Your task to perform on an android device: turn on the 24-hour format for clock Image 0: 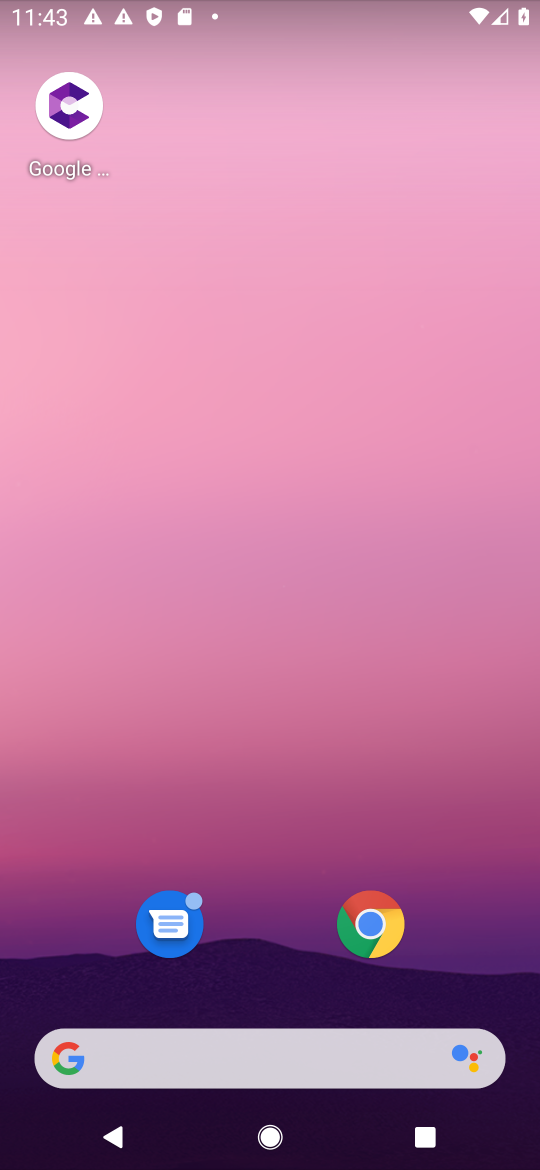
Step 0: drag from (481, 927) to (407, 183)
Your task to perform on an android device: turn on the 24-hour format for clock Image 1: 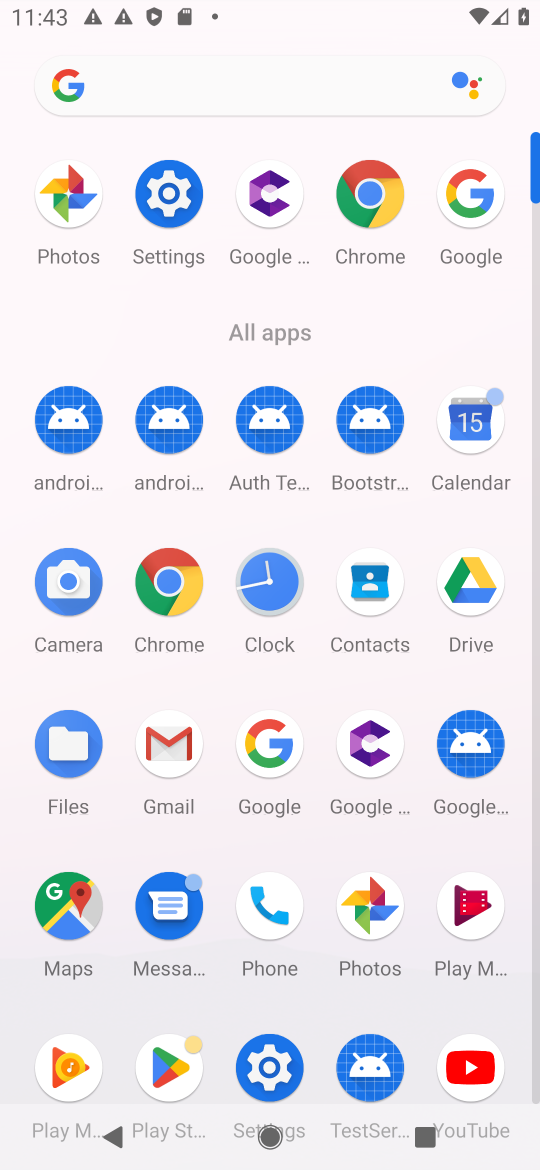
Step 1: click (275, 581)
Your task to perform on an android device: turn on the 24-hour format for clock Image 2: 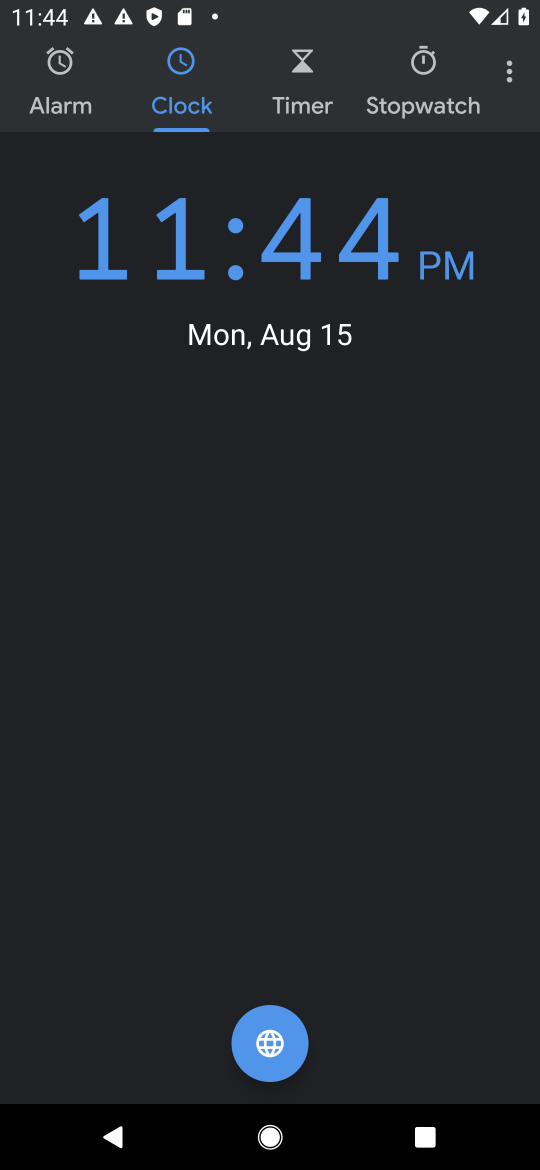
Step 2: click (507, 78)
Your task to perform on an android device: turn on the 24-hour format for clock Image 3: 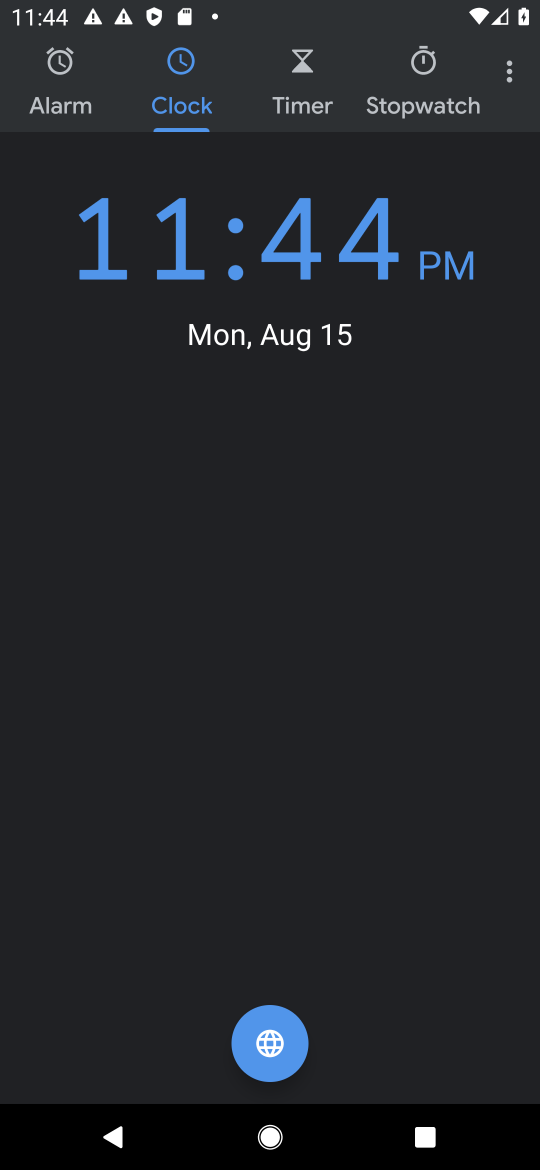
Step 3: click (514, 88)
Your task to perform on an android device: turn on the 24-hour format for clock Image 4: 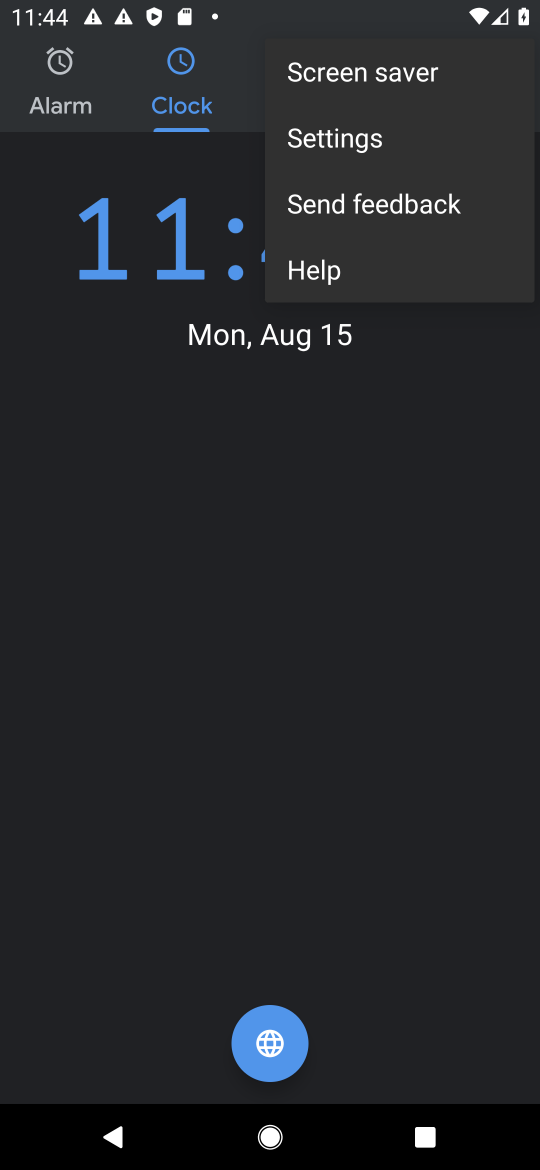
Step 4: click (352, 146)
Your task to perform on an android device: turn on the 24-hour format for clock Image 5: 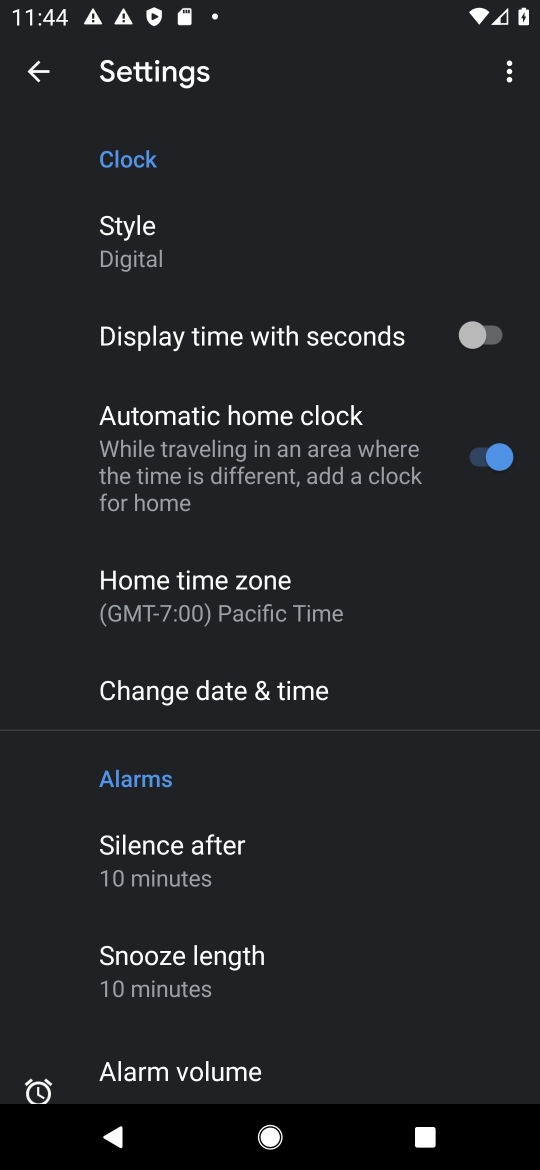
Step 5: drag from (342, 983) to (306, 294)
Your task to perform on an android device: turn on the 24-hour format for clock Image 6: 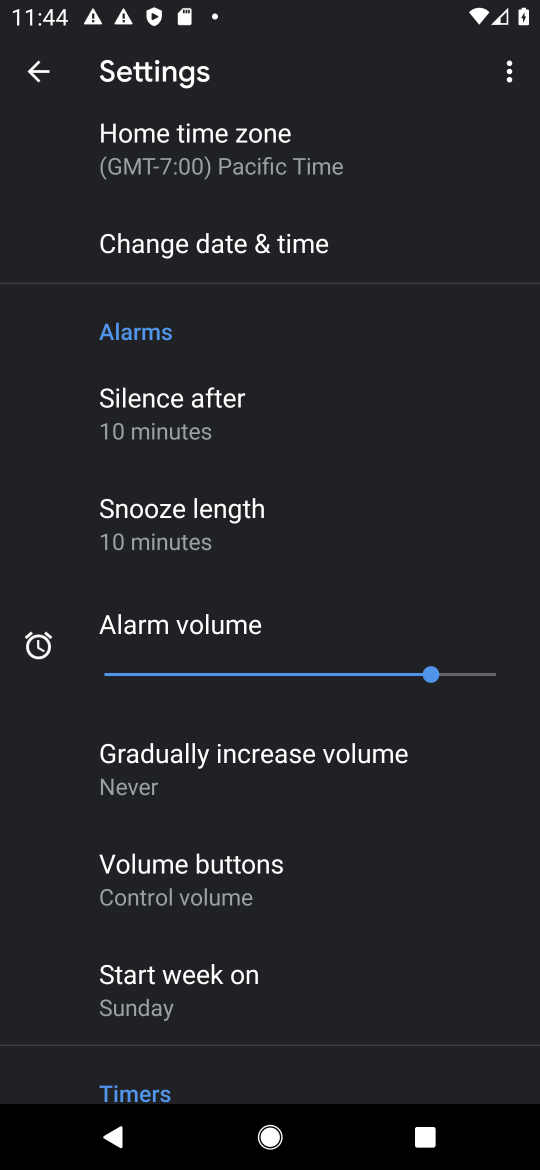
Step 6: click (183, 258)
Your task to perform on an android device: turn on the 24-hour format for clock Image 7: 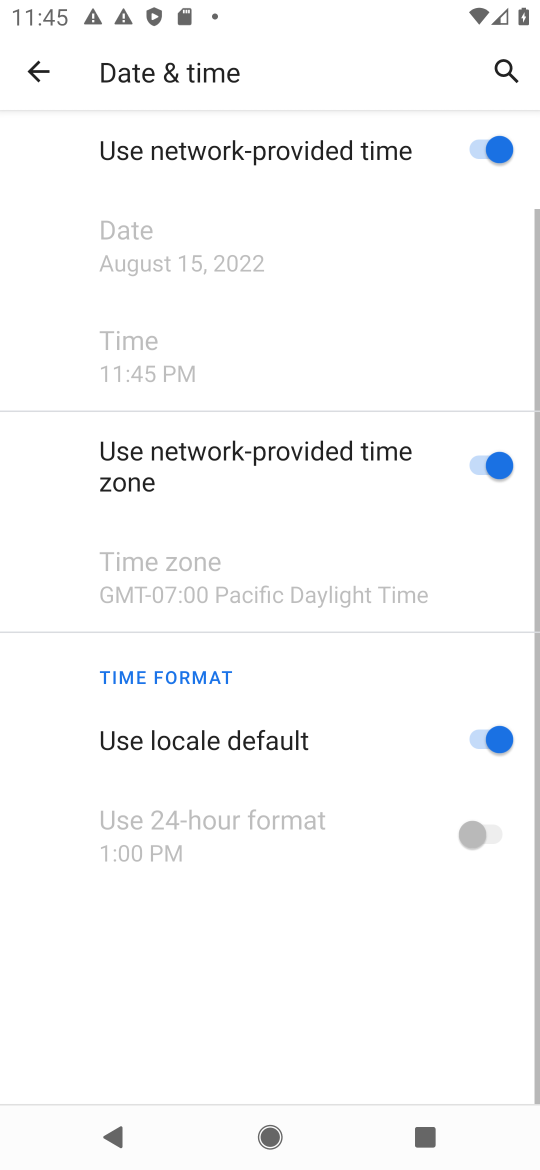
Step 7: click (505, 741)
Your task to perform on an android device: turn on the 24-hour format for clock Image 8: 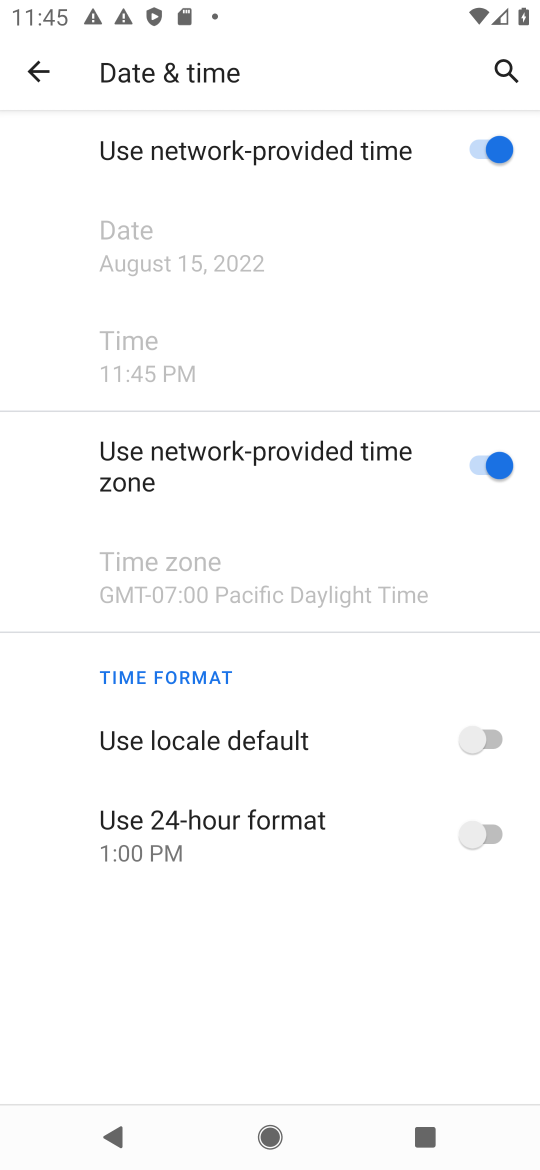
Step 8: click (486, 834)
Your task to perform on an android device: turn on the 24-hour format for clock Image 9: 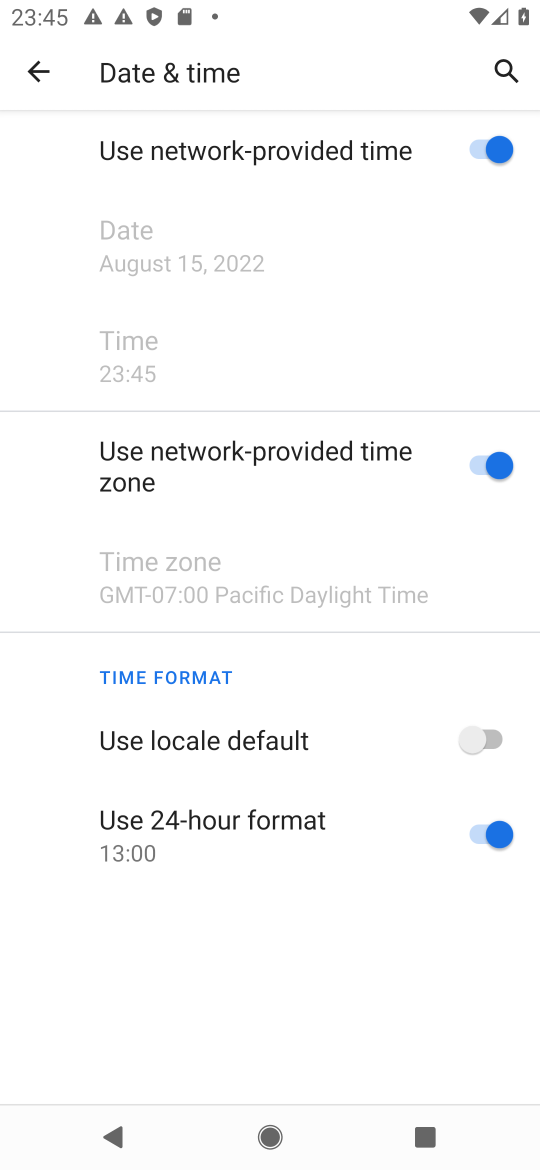
Step 9: task complete